Your task to perform on an android device: Go to ESPN.com Image 0: 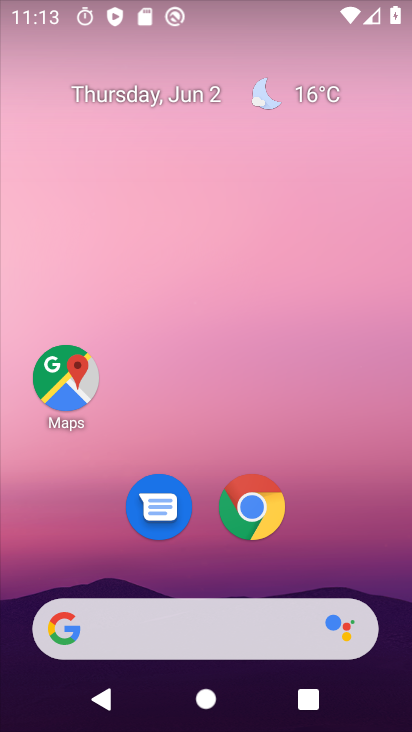
Step 0: drag from (400, 633) to (274, 44)
Your task to perform on an android device: Go to ESPN.com Image 1: 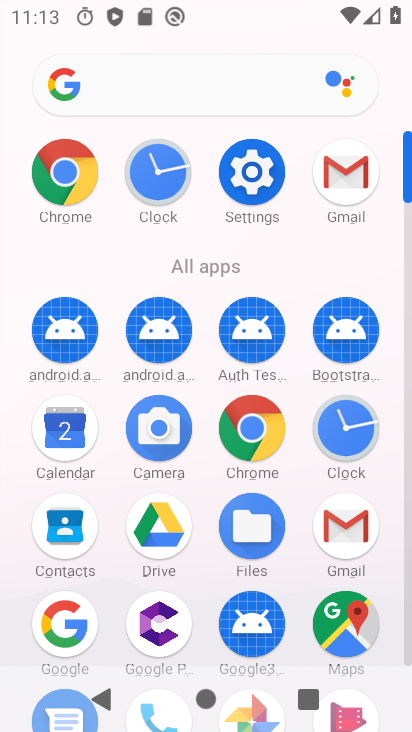
Step 1: click (70, 622)
Your task to perform on an android device: Go to ESPN.com Image 2: 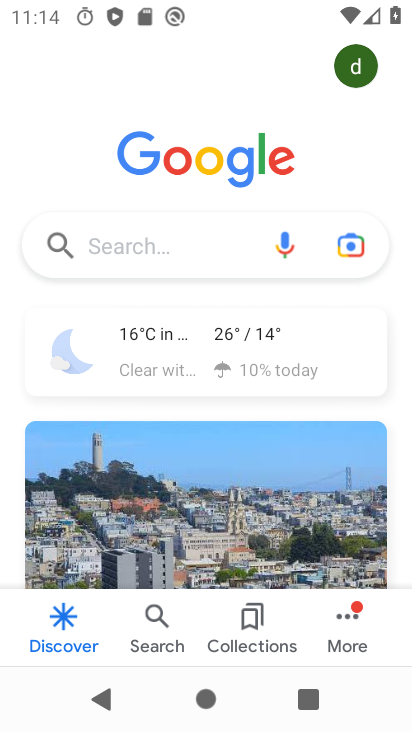
Step 2: click (160, 245)
Your task to perform on an android device: Go to ESPN.com Image 3: 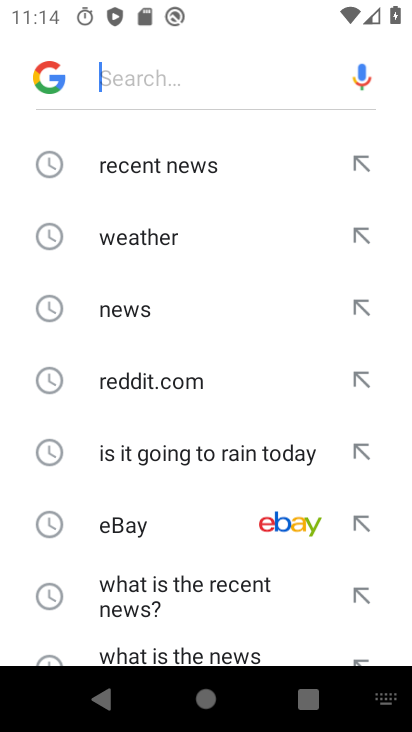
Step 3: type "espn.com"
Your task to perform on an android device: Go to ESPN.com Image 4: 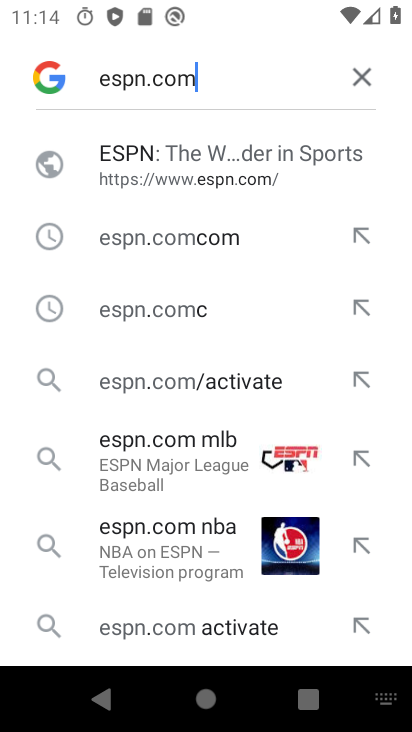
Step 4: click (262, 162)
Your task to perform on an android device: Go to ESPN.com Image 5: 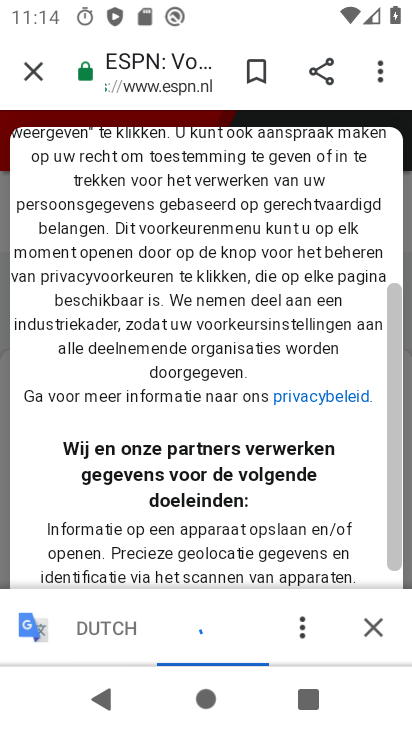
Step 5: task complete